Your task to perform on an android device: Go to ESPN.com Image 0: 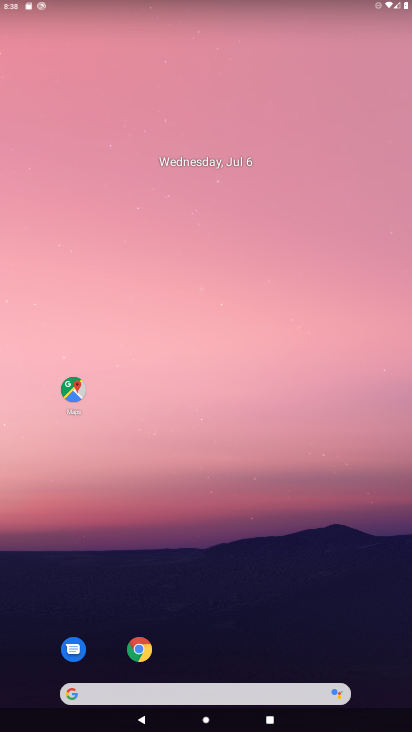
Step 0: drag from (357, 658) to (168, 199)
Your task to perform on an android device: Go to ESPN.com Image 1: 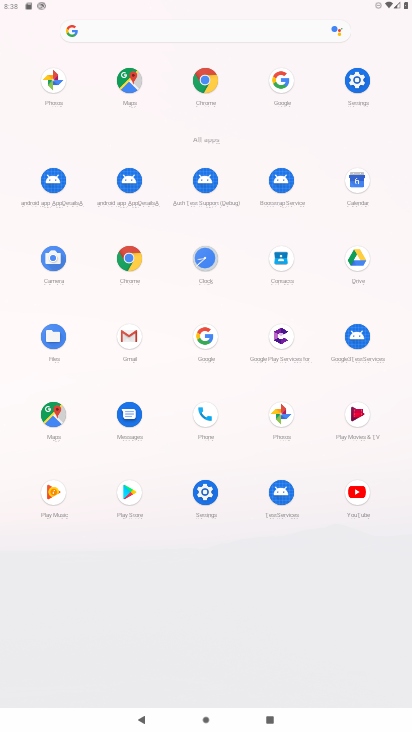
Step 1: click (284, 85)
Your task to perform on an android device: Go to ESPN.com Image 2: 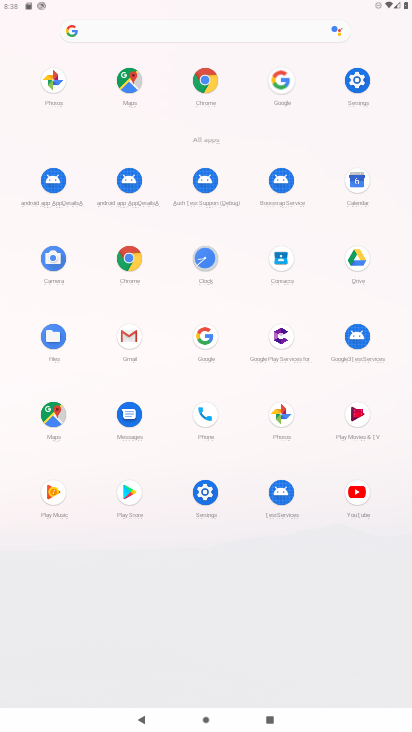
Step 2: click (283, 84)
Your task to perform on an android device: Go to ESPN.com Image 3: 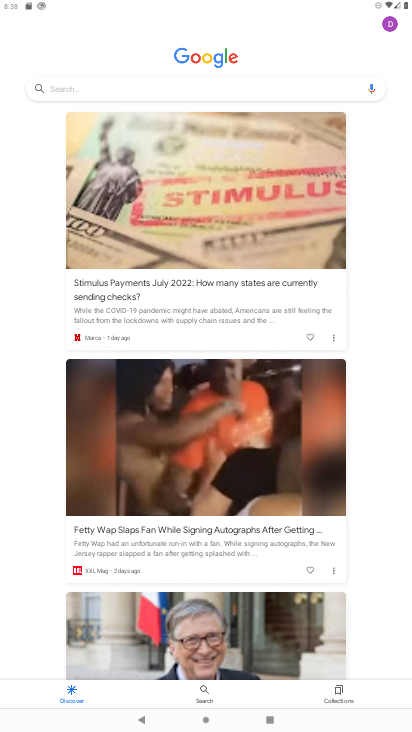
Step 3: drag from (220, 232) to (248, 567)
Your task to perform on an android device: Go to ESPN.com Image 4: 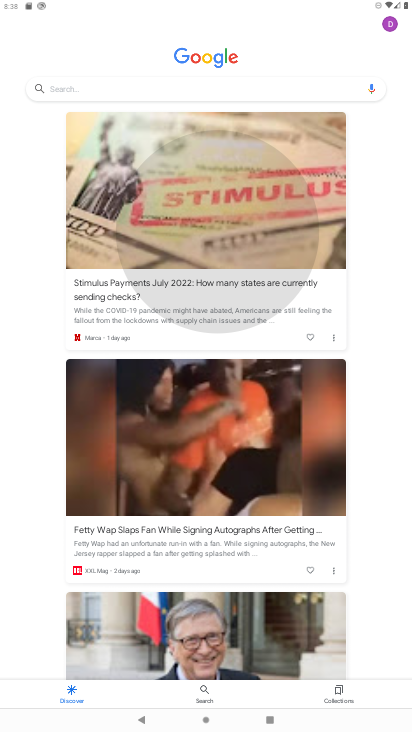
Step 4: drag from (215, 132) to (216, 523)
Your task to perform on an android device: Go to ESPN.com Image 5: 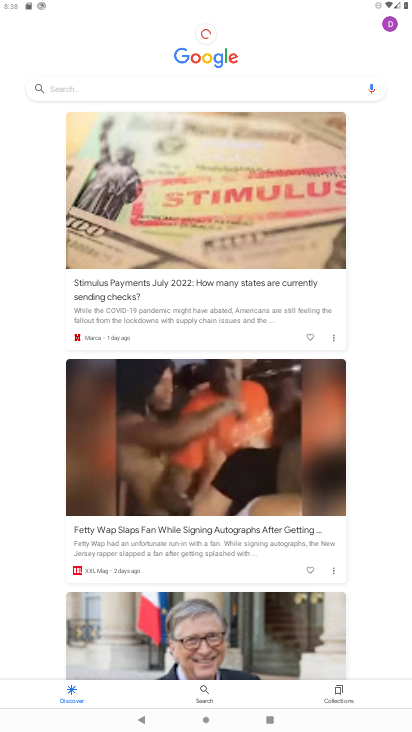
Step 5: click (200, 692)
Your task to perform on an android device: Go to ESPN.com Image 6: 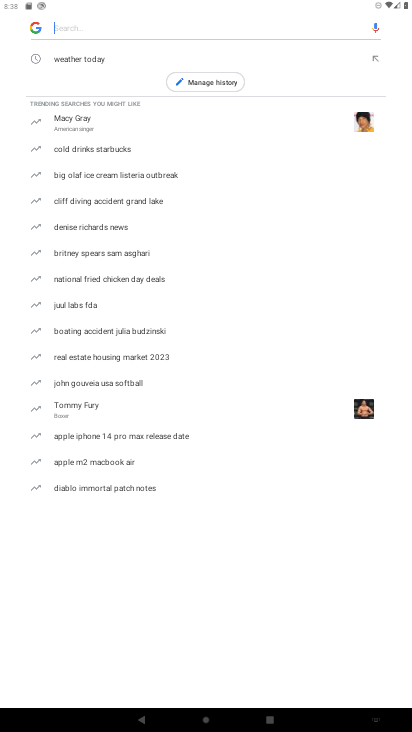
Step 6: type "espn.com"
Your task to perform on an android device: Go to ESPN.com Image 7: 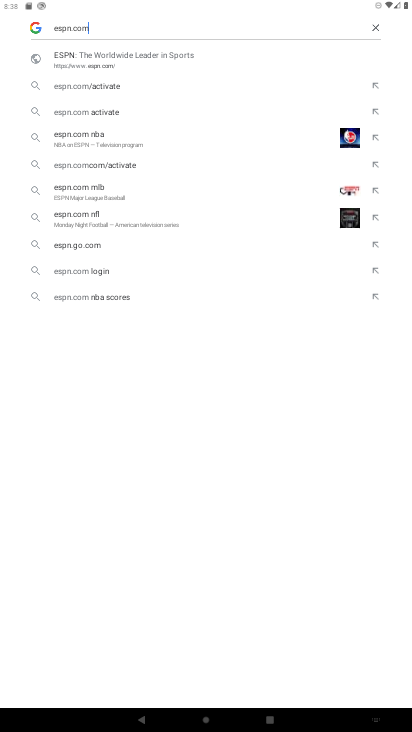
Step 7: click (153, 57)
Your task to perform on an android device: Go to ESPN.com Image 8: 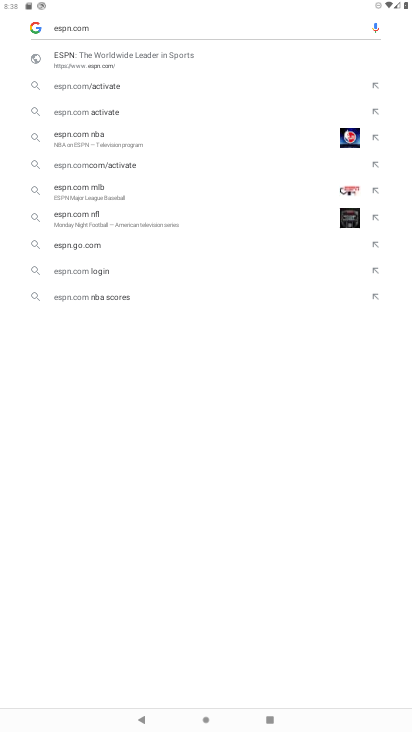
Step 8: click (142, 50)
Your task to perform on an android device: Go to ESPN.com Image 9: 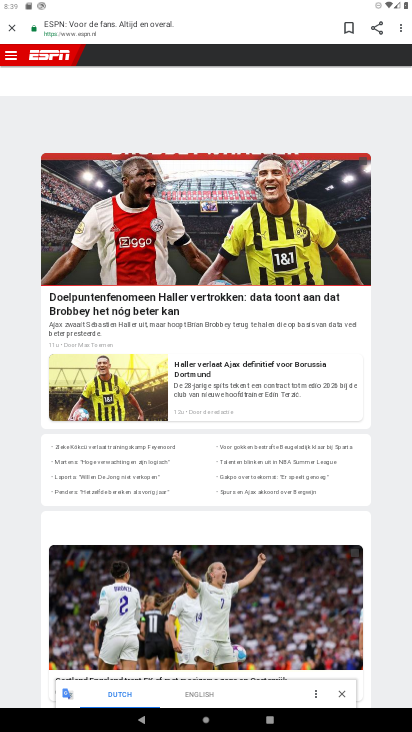
Step 9: task complete